Your task to perform on an android device: turn on the 24-hour format for clock Image 0: 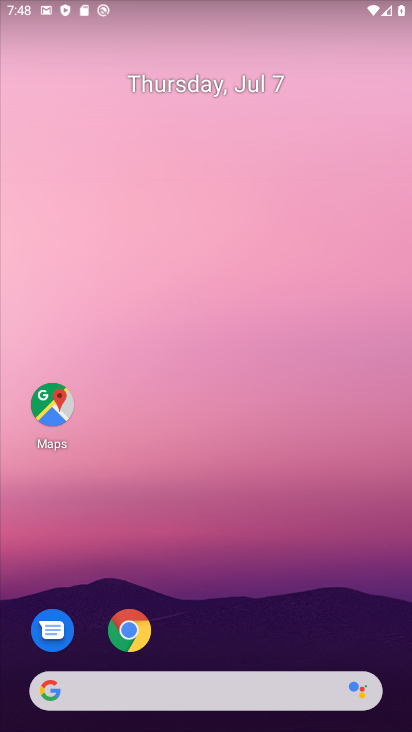
Step 0: drag from (286, 578) to (254, 259)
Your task to perform on an android device: turn on the 24-hour format for clock Image 1: 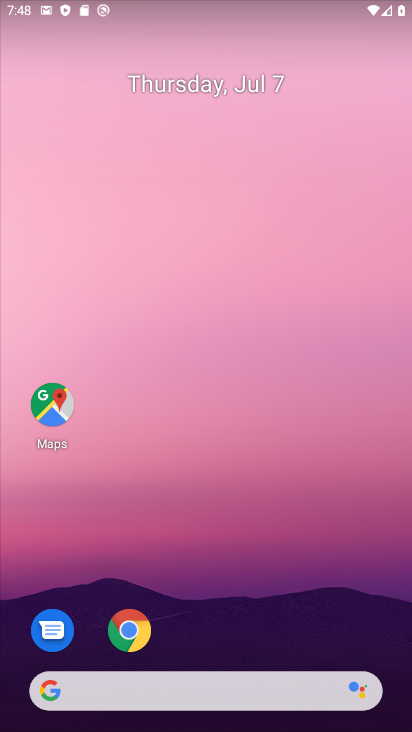
Step 1: drag from (242, 201) to (213, 7)
Your task to perform on an android device: turn on the 24-hour format for clock Image 2: 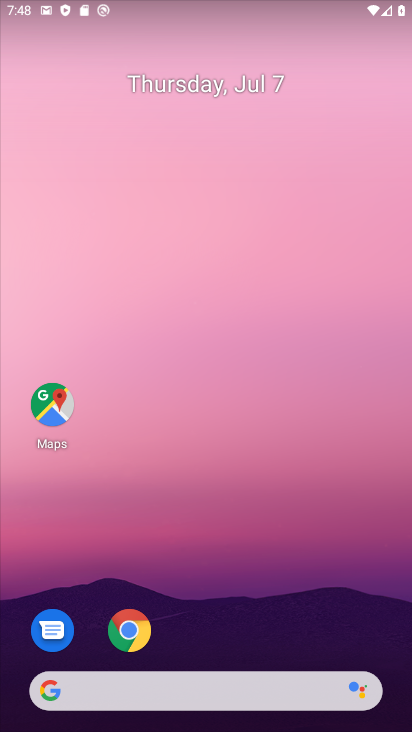
Step 2: drag from (311, 558) to (144, 48)
Your task to perform on an android device: turn on the 24-hour format for clock Image 3: 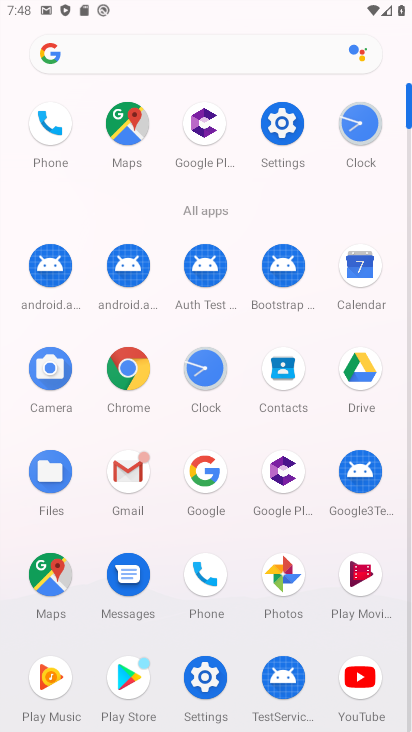
Step 3: click (199, 380)
Your task to perform on an android device: turn on the 24-hour format for clock Image 4: 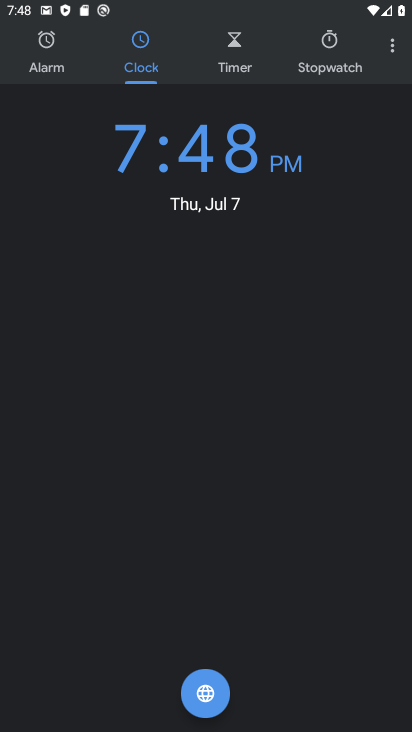
Step 4: click (387, 46)
Your task to perform on an android device: turn on the 24-hour format for clock Image 5: 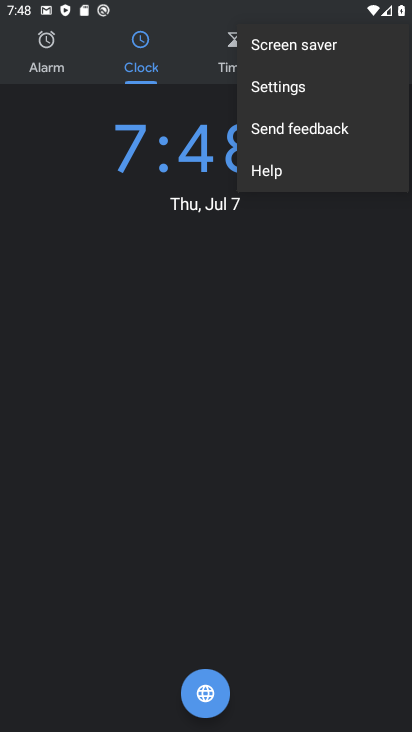
Step 5: click (347, 91)
Your task to perform on an android device: turn on the 24-hour format for clock Image 6: 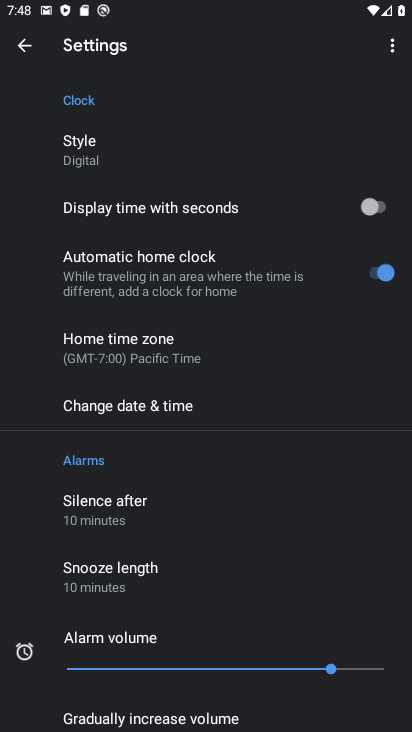
Step 6: click (205, 409)
Your task to perform on an android device: turn on the 24-hour format for clock Image 7: 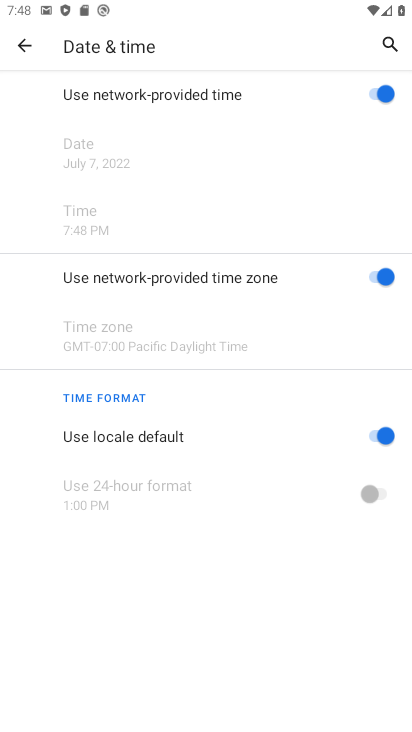
Step 7: click (379, 426)
Your task to perform on an android device: turn on the 24-hour format for clock Image 8: 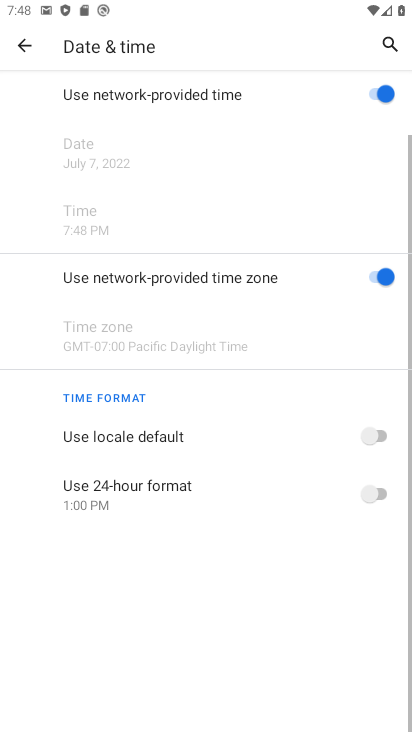
Step 8: click (381, 491)
Your task to perform on an android device: turn on the 24-hour format for clock Image 9: 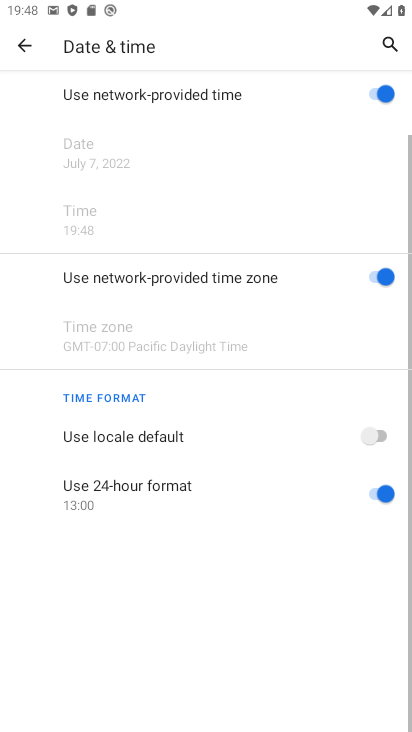
Step 9: task complete